Your task to perform on an android device: clear history in the chrome app Image 0: 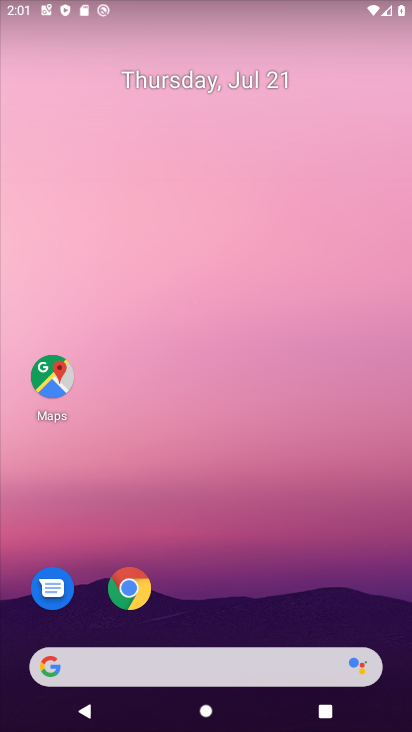
Step 0: drag from (204, 599) to (324, 197)
Your task to perform on an android device: clear history in the chrome app Image 1: 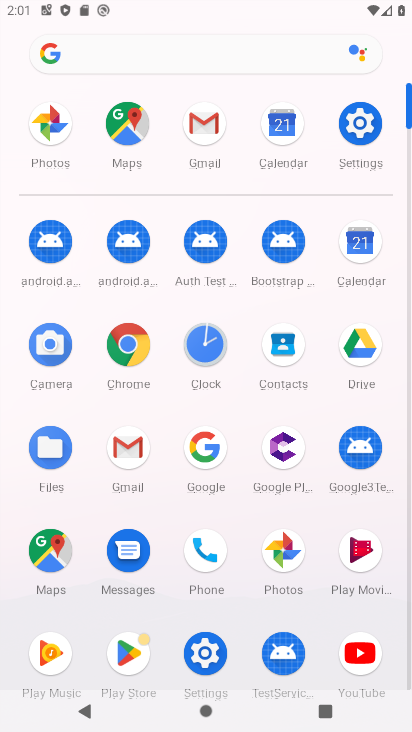
Step 1: click (127, 344)
Your task to perform on an android device: clear history in the chrome app Image 2: 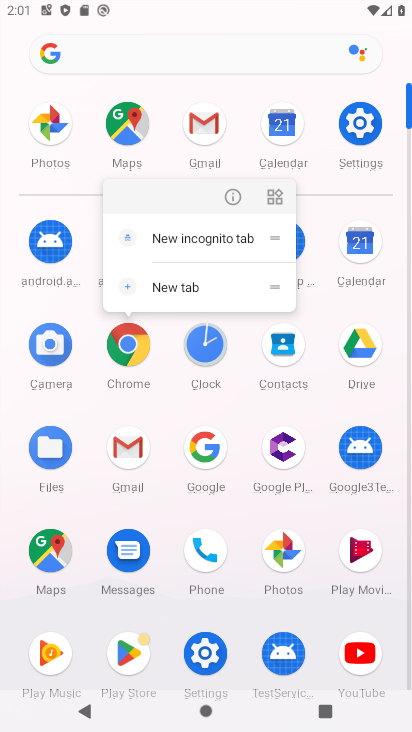
Step 2: click (227, 192)
Your task to perform on an android device: clear history in the chrome app Image 3: 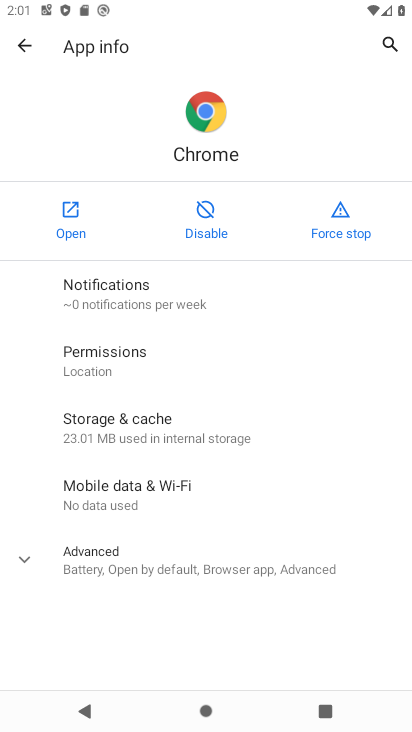
Step 3: click (66, 220)
Your task to perform on an android device: clear history in the chrome app Image 4: 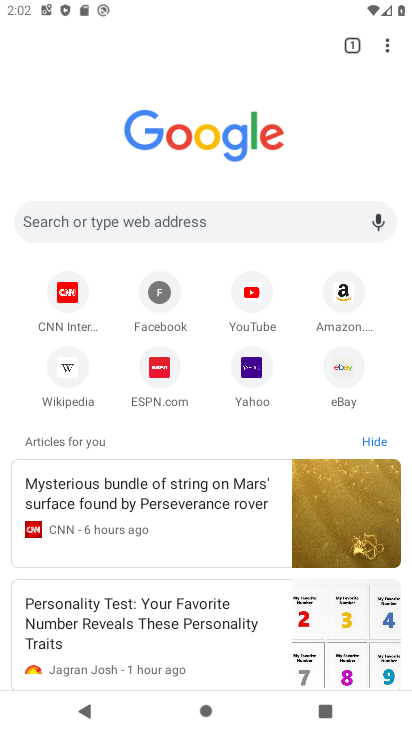
Step 4: drag from (388, 48) to (262, 291)
Your task to perform on an android device: clear history in the chrome app Image 5: 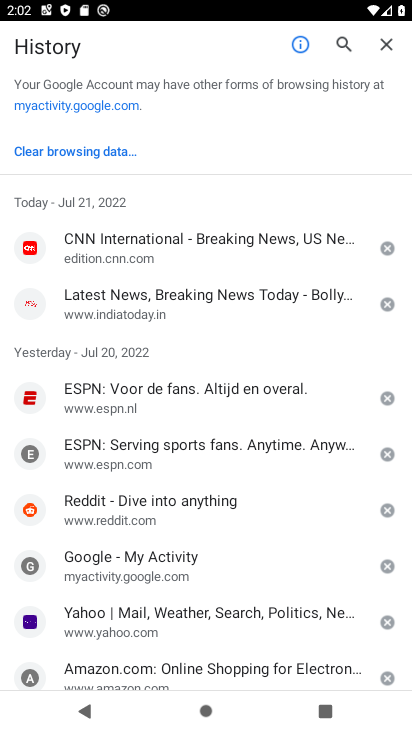
Step 5: click (78, 156)
Your task to perform on an android device: clear history in the chrome app Image 6: 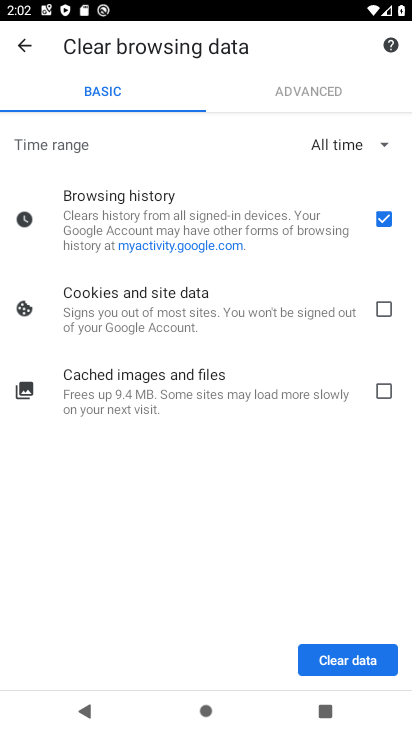
Step 6: click (344, 668)
Your task to perform on an android device: clear history in the chrome app Image 7: 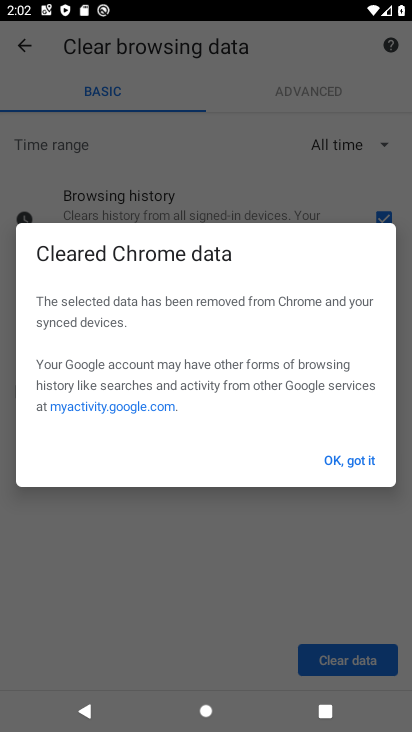
Step 7: click (349, 459)
Your task to perform on an android device: clear history in the chrome app Image 8: 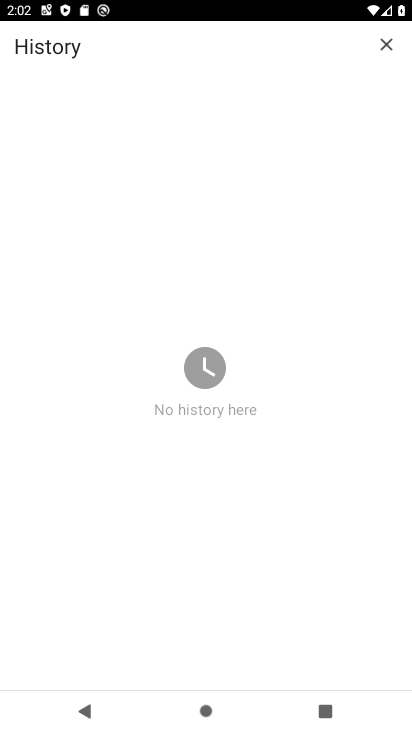
Step 8: task complete